Your task to perform on an android device: change notifications settings Image 0: 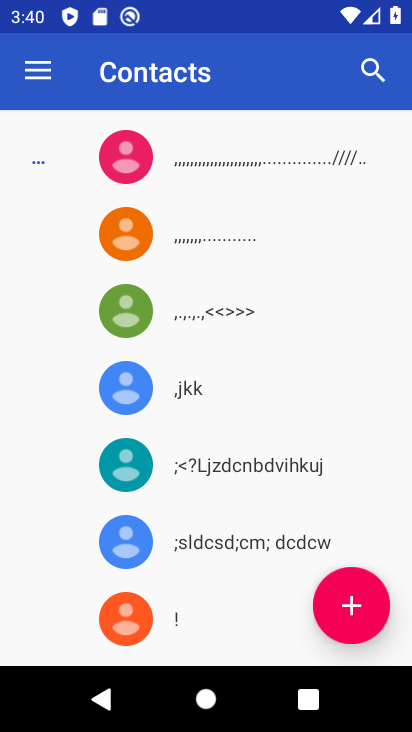
Step 0: press back button
Your task to perform on an android device: change notifications settings Image 1: 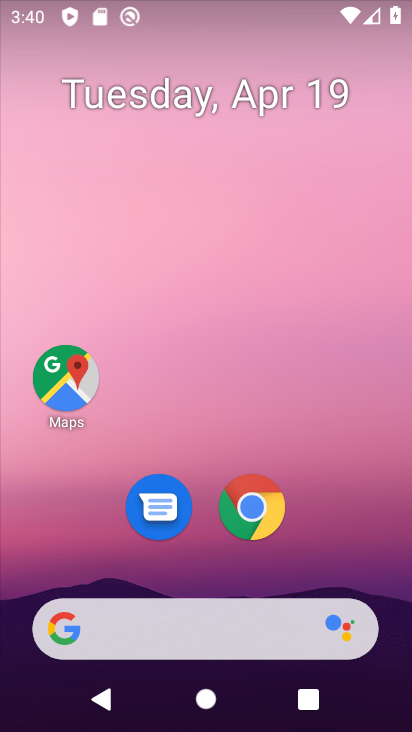
Step 1: drag from (349, 535) to (348, 68)
Your task to perform on an android device: change notifications settings Image 2: 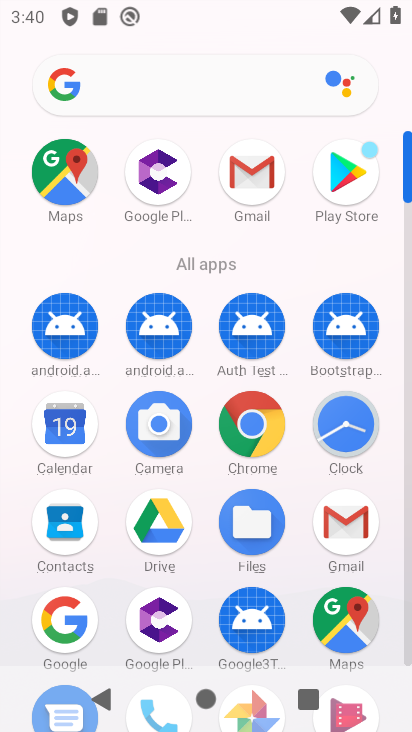
Step 2: drag from (211, 542) to (251, 357)
Your task to perform on an android device: change notifications settings Image 3: 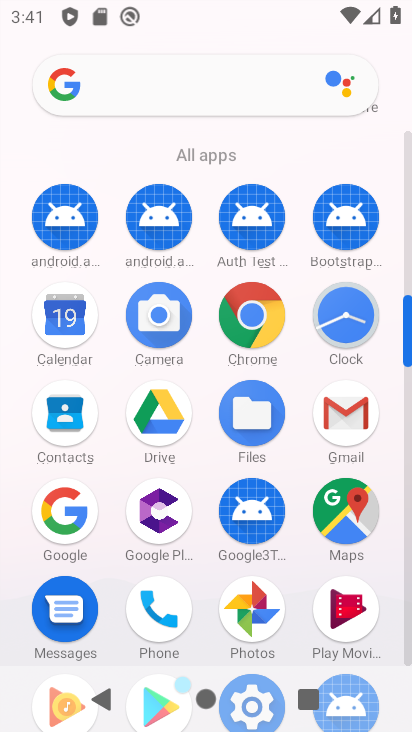
Step 3: drag from (273, 635) to (320, 453)
Your task to perform on an android device: change notifications settings Image 4: 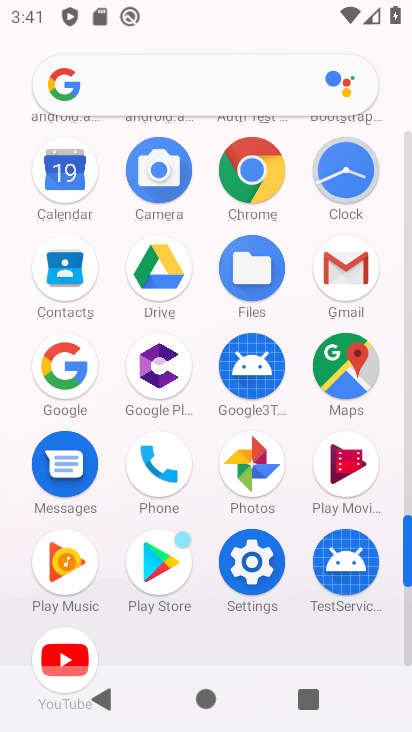
Step 4: click (265, 569)
Your task to perform on an android device: change notifications settings Image 5: 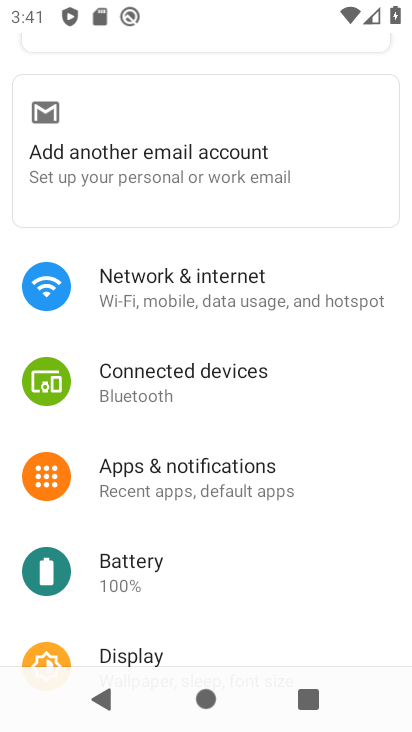
Step 5: click (225, 484)
Your task to perform on an android device: change notifications settings Image 6: 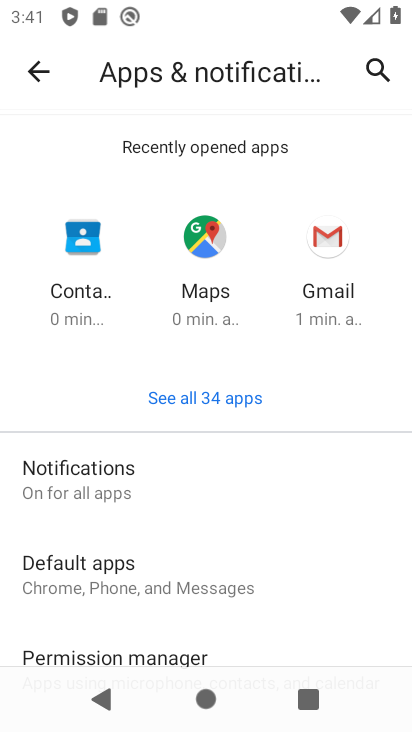
Step 6: click (216, 483)
Your task to perform on an android device: change notifications settings Image 7: 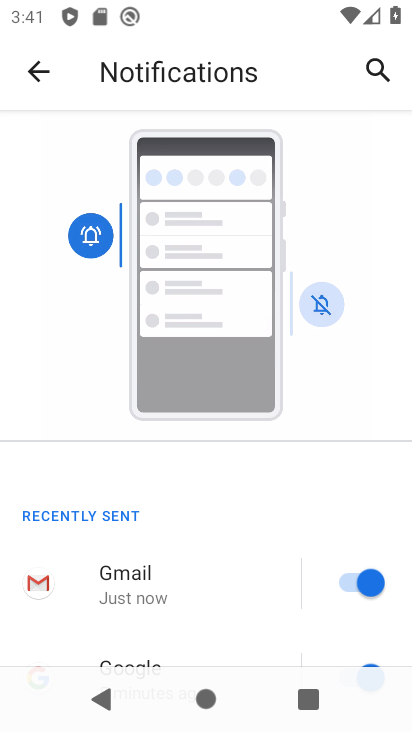
Step 7: drag from (218, 538) to (268, 186)
Your task to perform on an android device: change notifications settings Image 8: 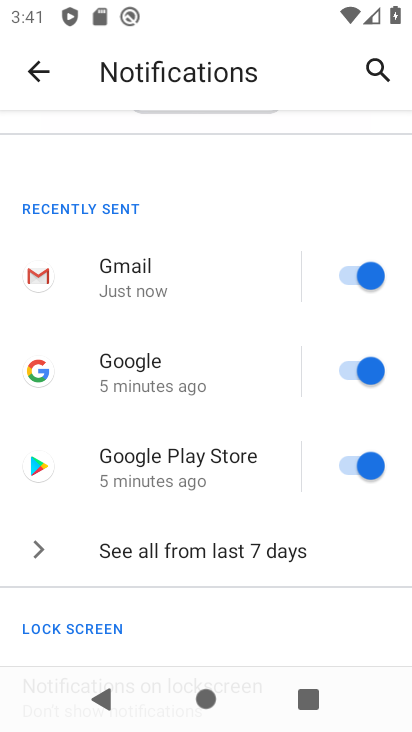
Step 8: click (205, 558)
Your task to perform on an android device: change notifications settings Image 9: 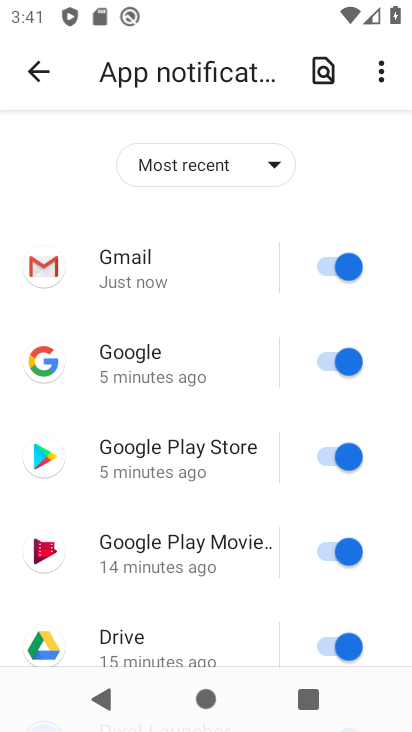
Step 9: click (328, 268)
Your task to perform on an android device: change notifications settings Image 10: 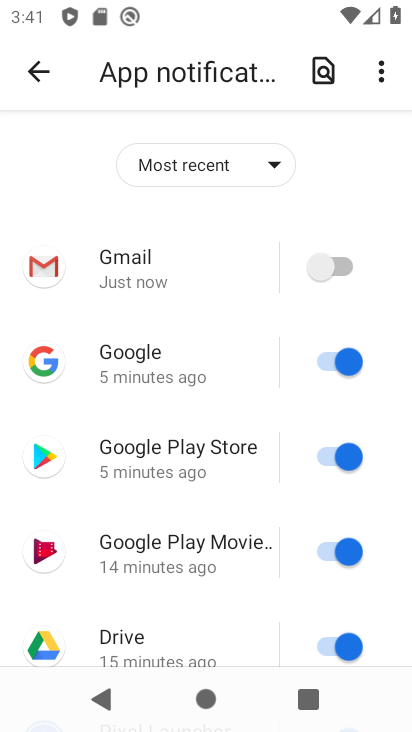
Step 10: click (339, 369)
Your task to perform on an android device: change notifications settings Image 11: 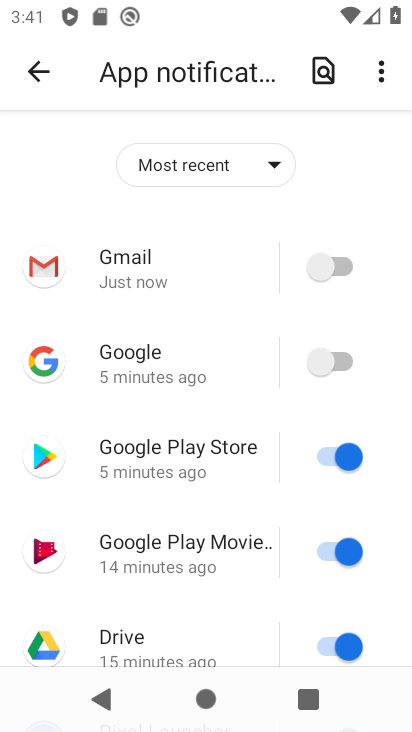
Step 11: click (332, 451)
Your task to perform on an android device: change notifications settings Image 12: 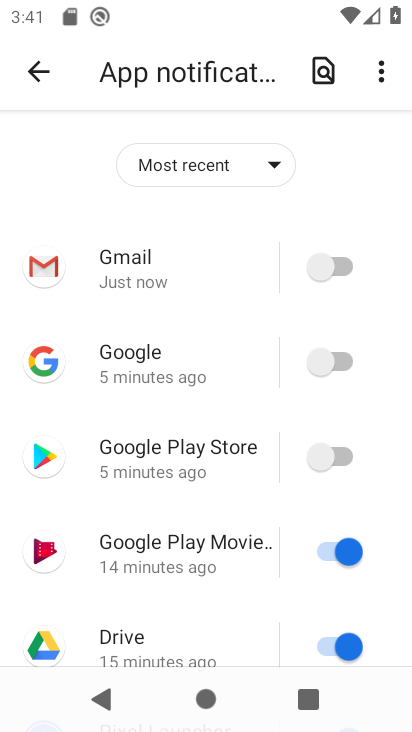
Step 12: click (328, 540)
Your task to perform on an android device: change notifications settings Image 13: 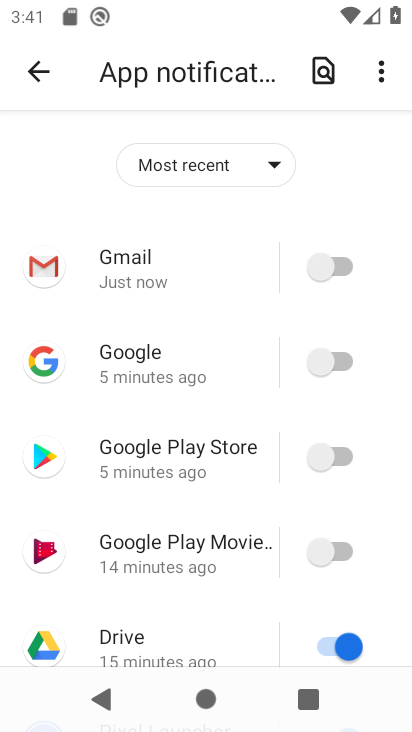
Step 13: click (334, 658)
Your task to perform on an android device: change notifications settings Image 14: 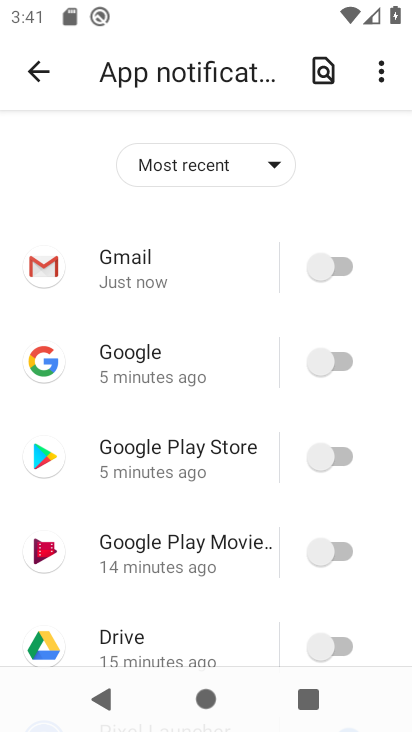
Step 14: drag from (253, 628) to (264, 214)
Your task to perform on an android device: change notifications settings Image 15: 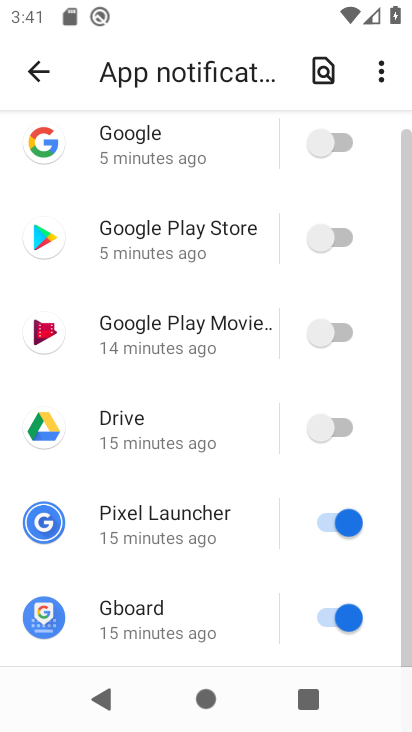
Step 15: click (314, 528)
Your task to perform on an android device: change notifications settings Image 16: 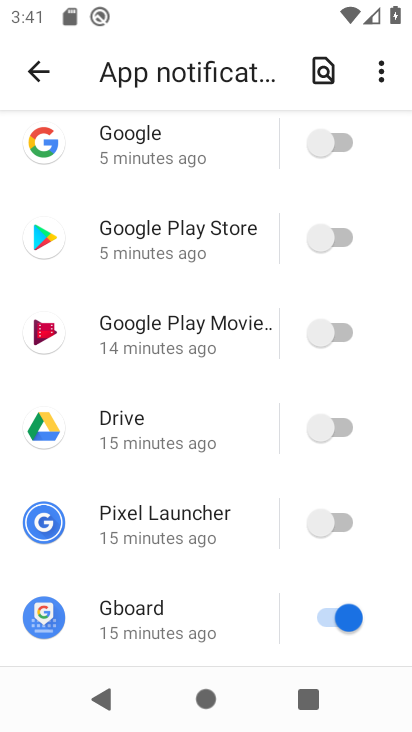
Step 16: click (342, 606)
Your task to perform on an android device: change notifications settings Image 17: 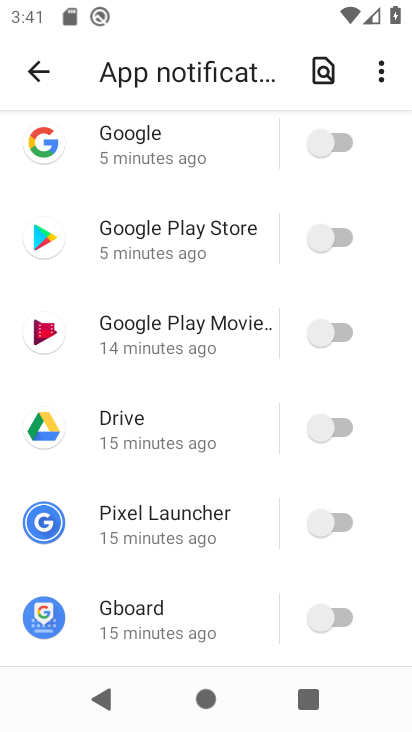
Step 17: drag from (265, 638) to (237, 276)
Your task to perform on an android device: change notifications settings Image 18: 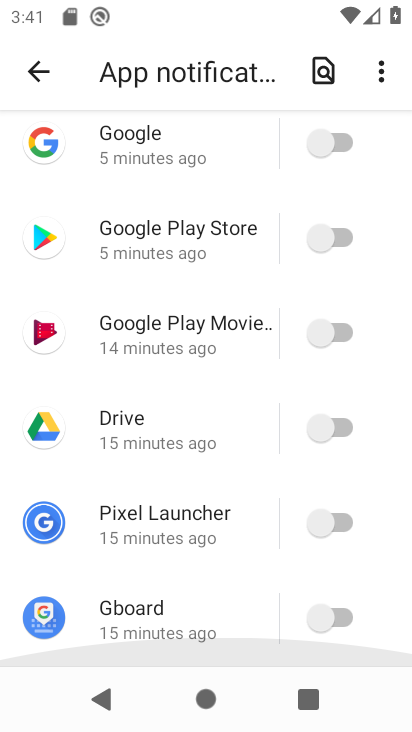
Step 18: click (26, 79)
Your task to perform on an android device: change notifications settings Image 19: 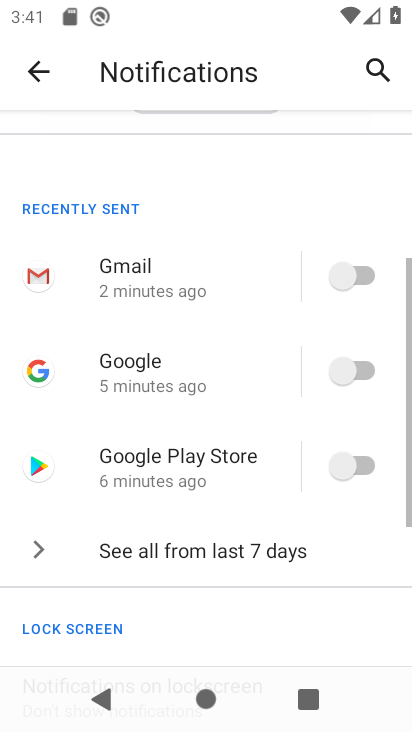
Step 19: drag from (168, 596) to (199, 196)
Your task to perform on an android device: change notifications settings Image 20: 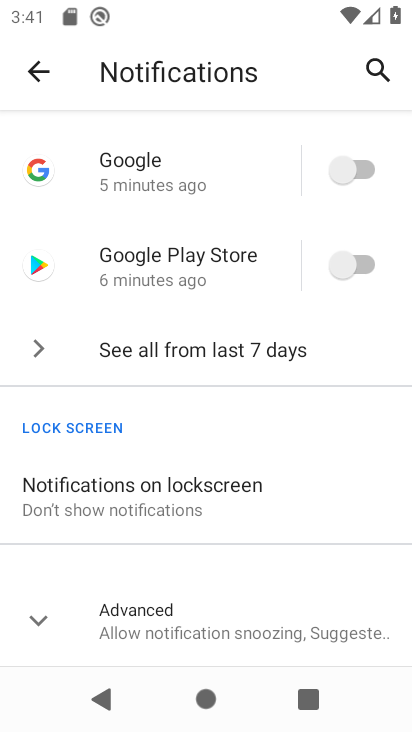
Step 20: click (199, 504)
Your task to perform on an android device: change notifications settings Image 21: 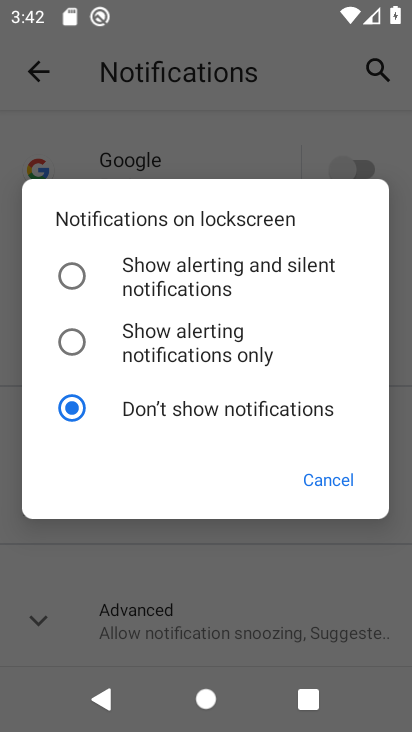
Step 21: click (254, 276)
Your task to perform on an android device: change notifications settings Image 22: 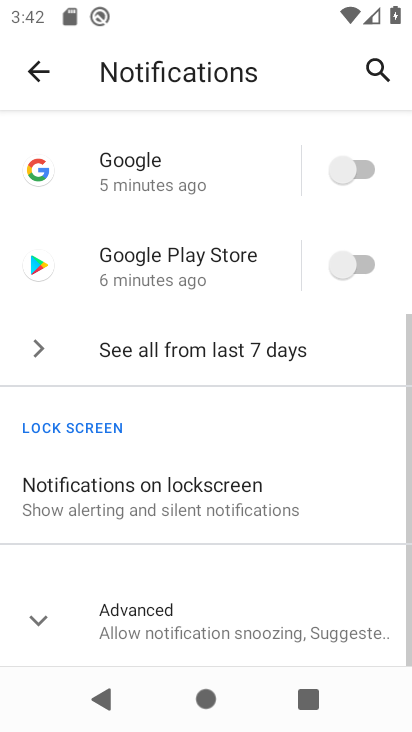
Step 22: click (160, 620)
Your task to perform on an android device: change notifications settings Image 23: 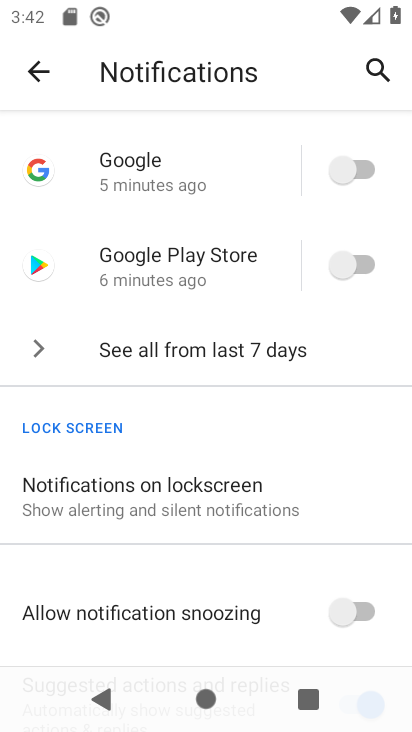
Step 23: drag from (190, 593) to (196, 261)
Your task to perform on an android device: change notifications settings Image 24: 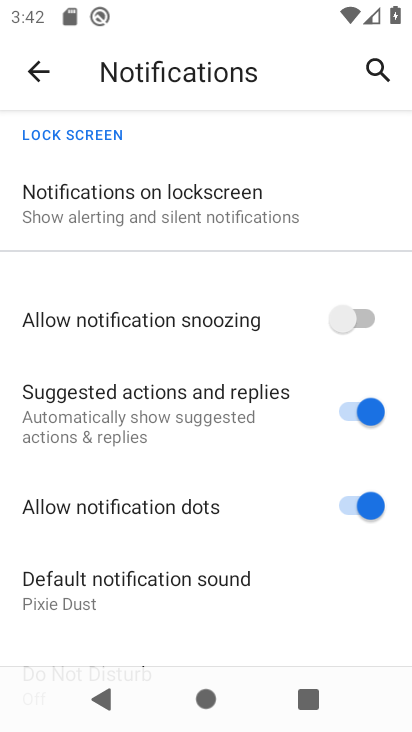
Step 24: click (351, 327)
Your task to perform on an android device: change notifications settings Image 25: 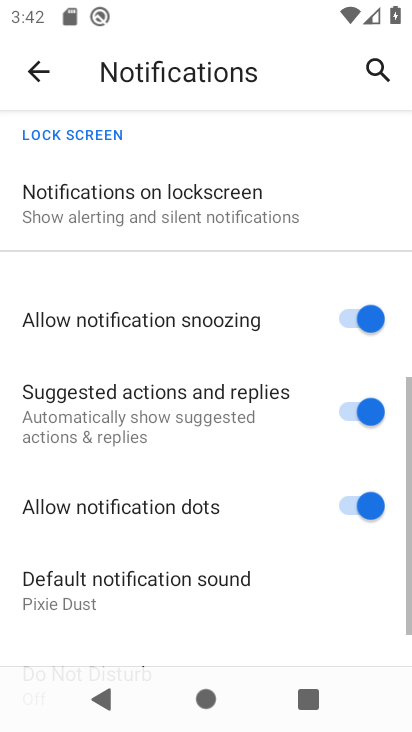
Step 25: click (341, 403)
Your task to perform on an android device: change notifications settings Image 26: 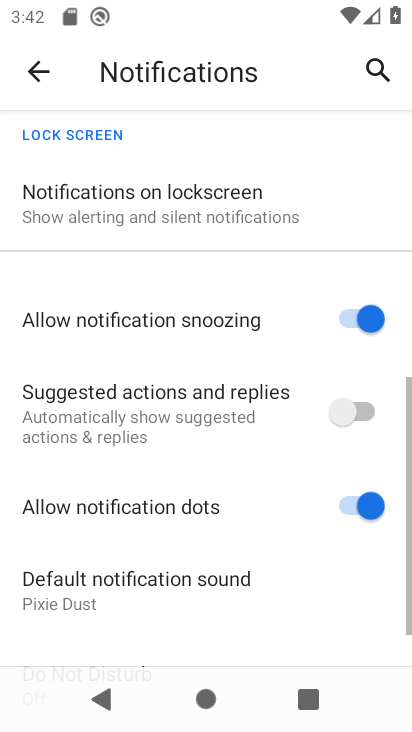
Step 26: click (361, 502)
Your task to perform on an android device: change notifications settings Image 27: 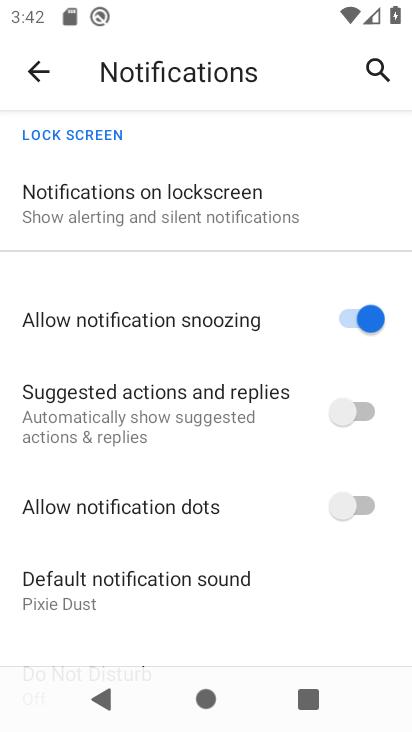
Step 27: task complete